Your task to perform on an android device: What's the weather going to be this weekend? Image 0: 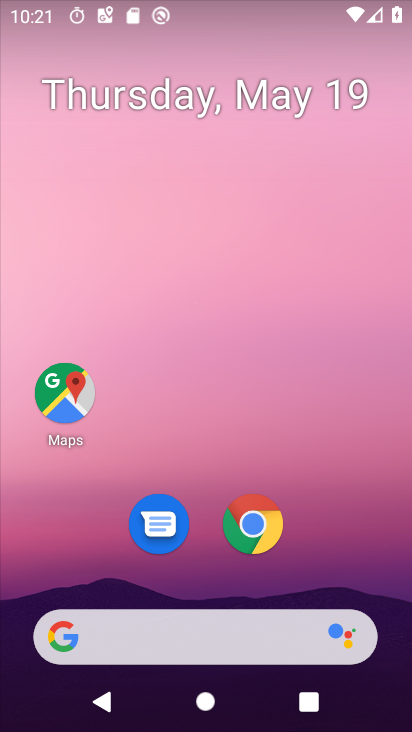
Step 0: click (160, 636)
Your task to perform on an android device: What's the weather going to be this weekend? Image 1: 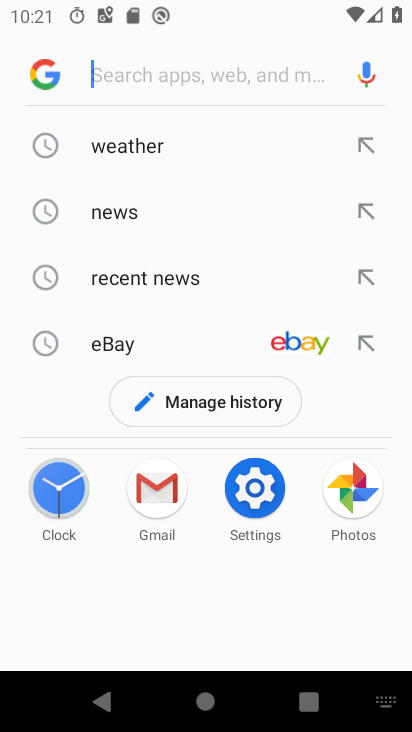
Step 1: click (123, 140)
Your task to perform on an android device: What's the weather going to be this weekend? Image 2: 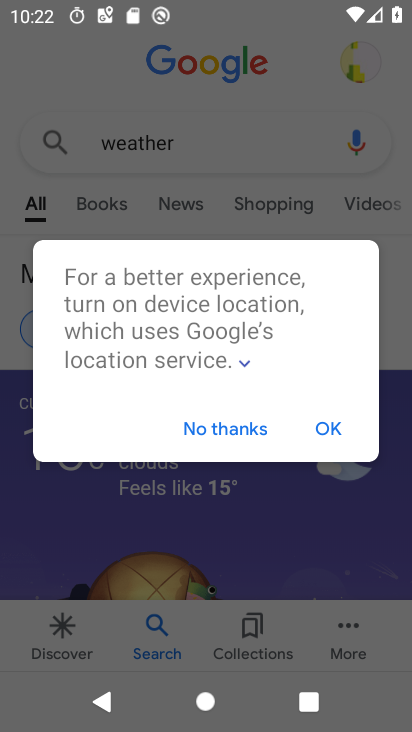
Step 2: click (337, 425)
Your task to perform on an android device: What's the weather going to be this weekend? Image 3: 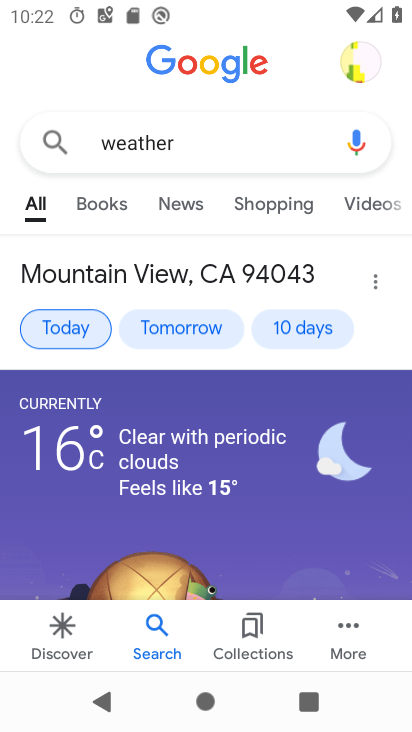
Step 3: click (85, 328)
Your task to perform on an android device: What's the weather going to be this weekend? Image 4: 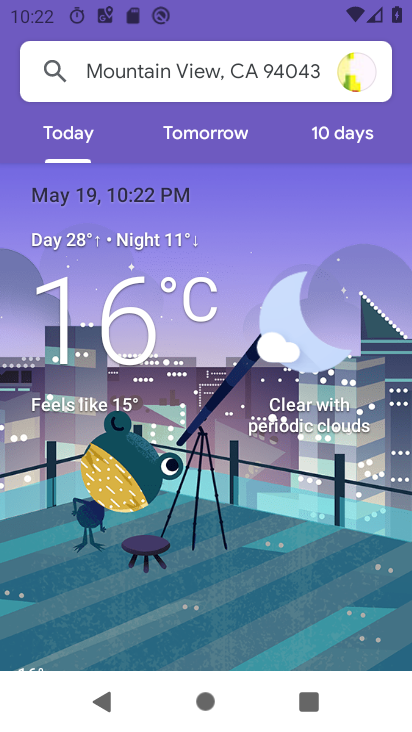
Step 4: click (324, 129)
Your task to perform on an android device: What's the weather going to be this weekend? Image 5: 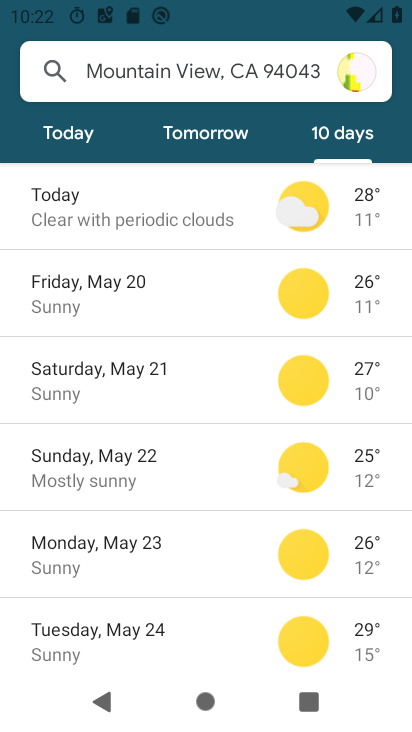
Step 5: click (102, 375)
Your task to perform on an android device: What's the weather going to be this weekend? Image 6: 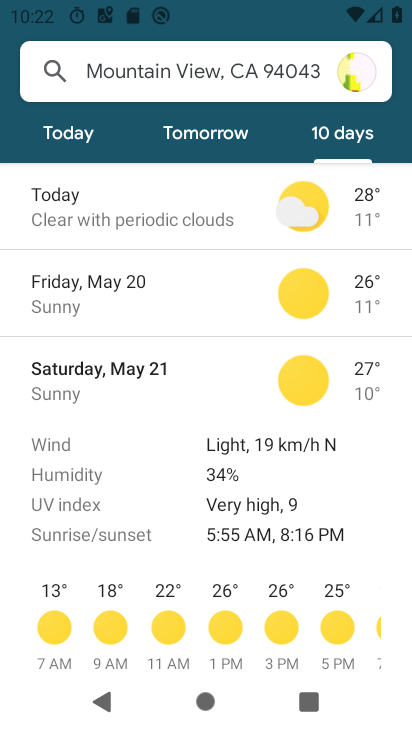
Step 6: task complete